Your task to perform on an android device: check the backup settings in the google photos Image 0: 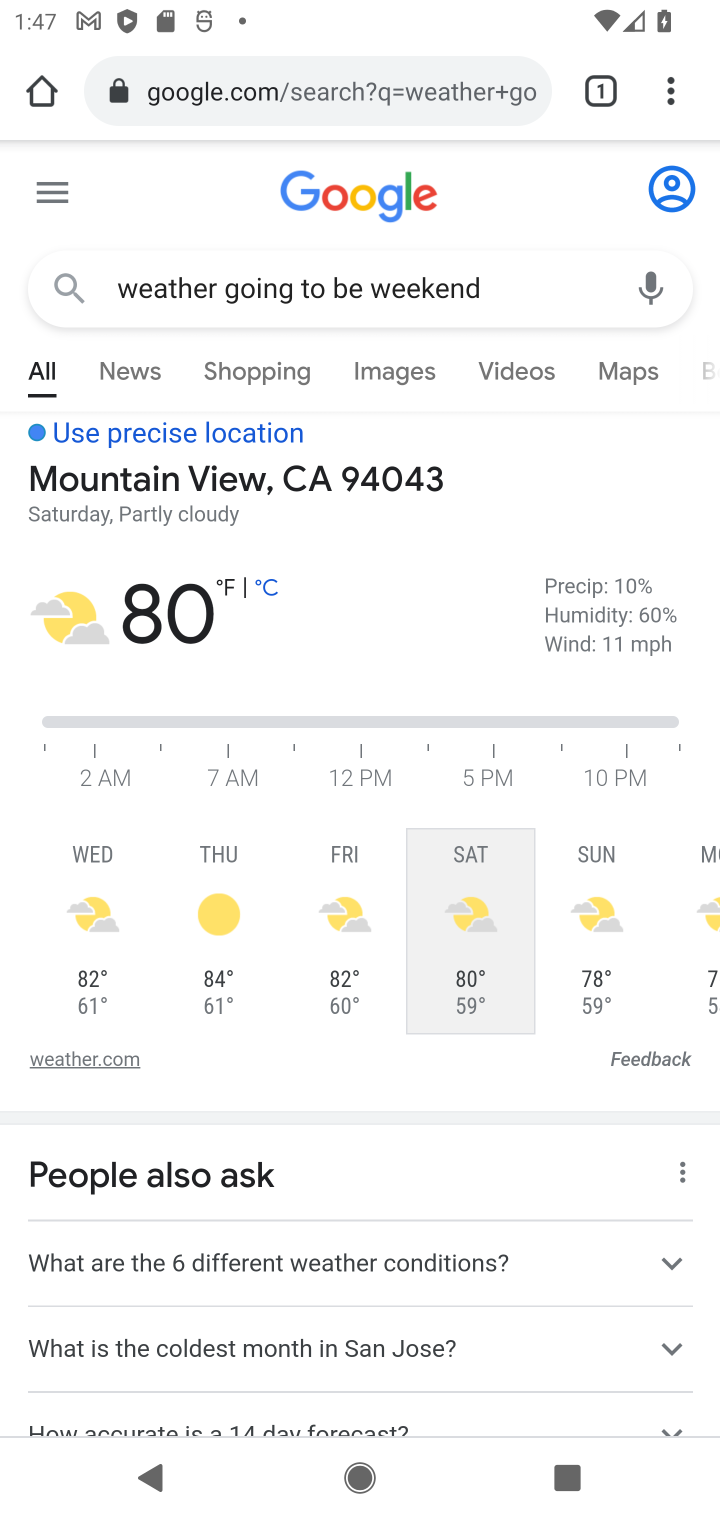
Step 0: press home button
Your task to perform on an android device: check the backup settings in the google photos Image 1: 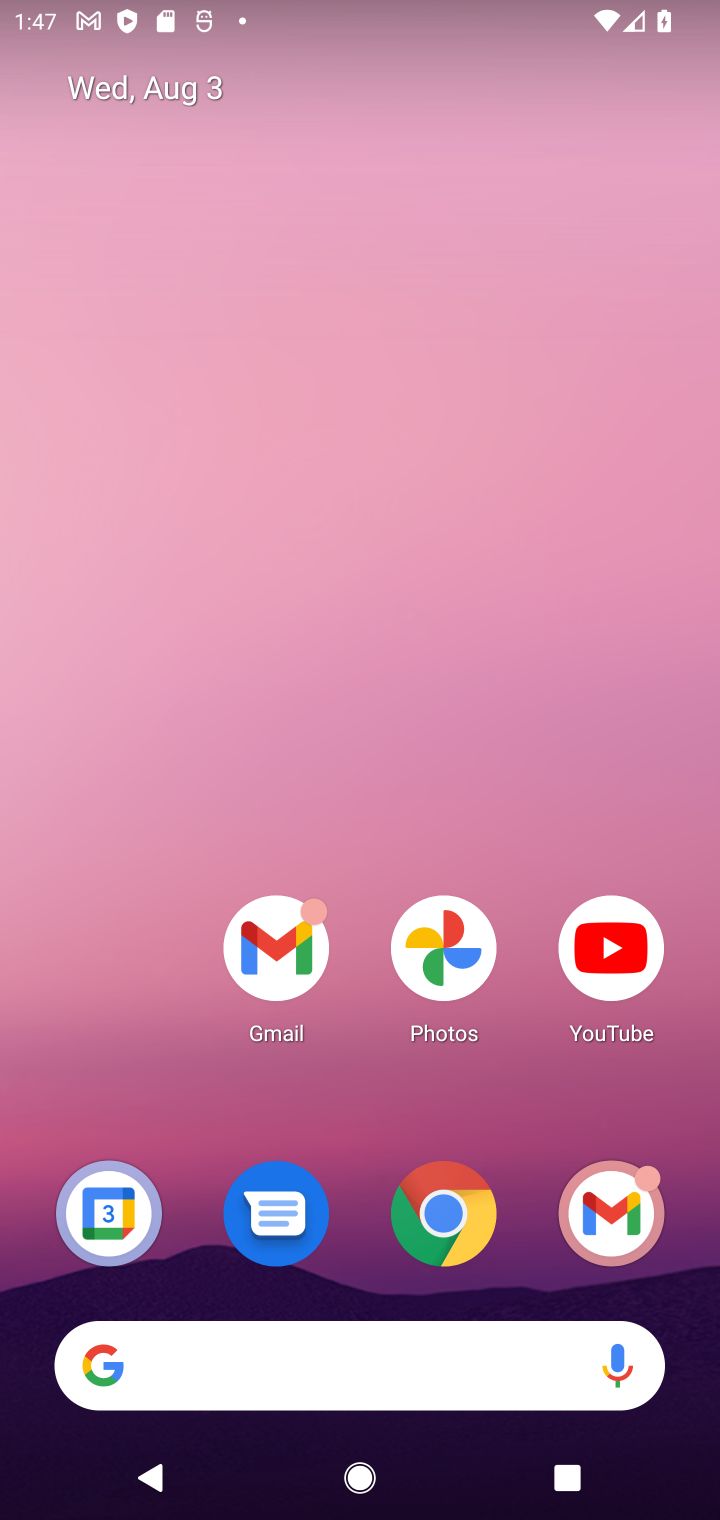
Step 1: drag from (458, 1026) to (534, 10)
Your task to perform on an android device: check the backup settings in the google photos Image 2: 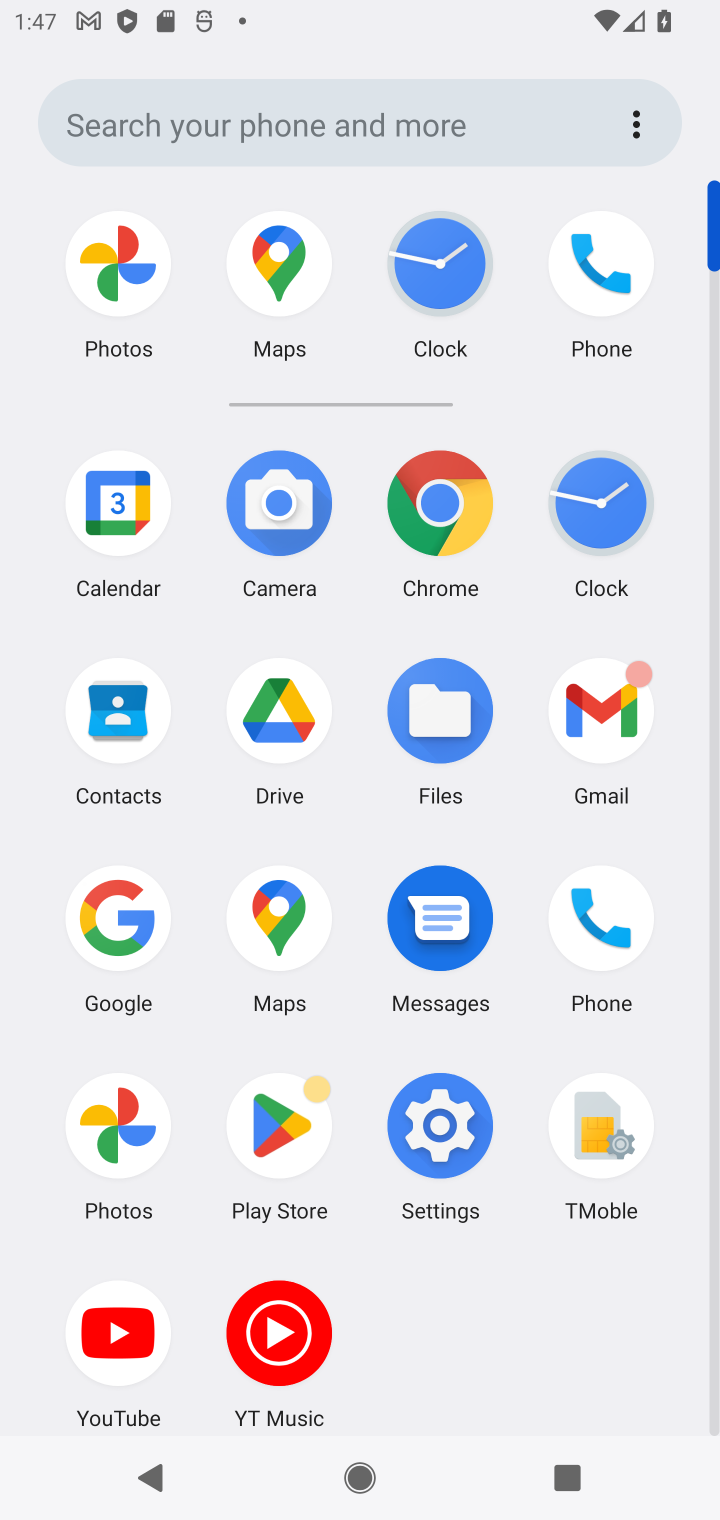
Step 2: click (117, 1132)
Your task to perform on an android device: check the backup settings in the google photos Image 3: 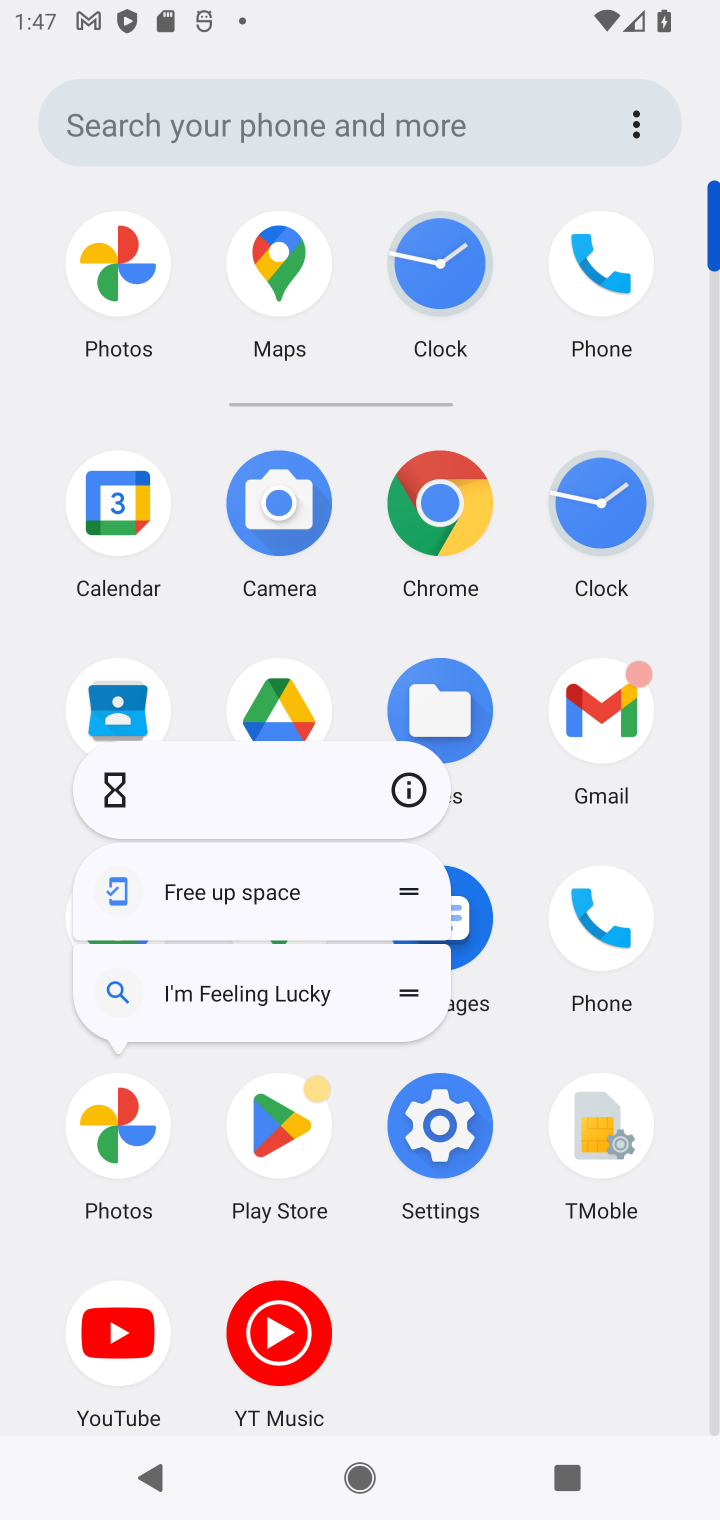
Step 3: click (117, 1132)
Your task to perform on an android device: check the backup settings in the google photos Image 4: 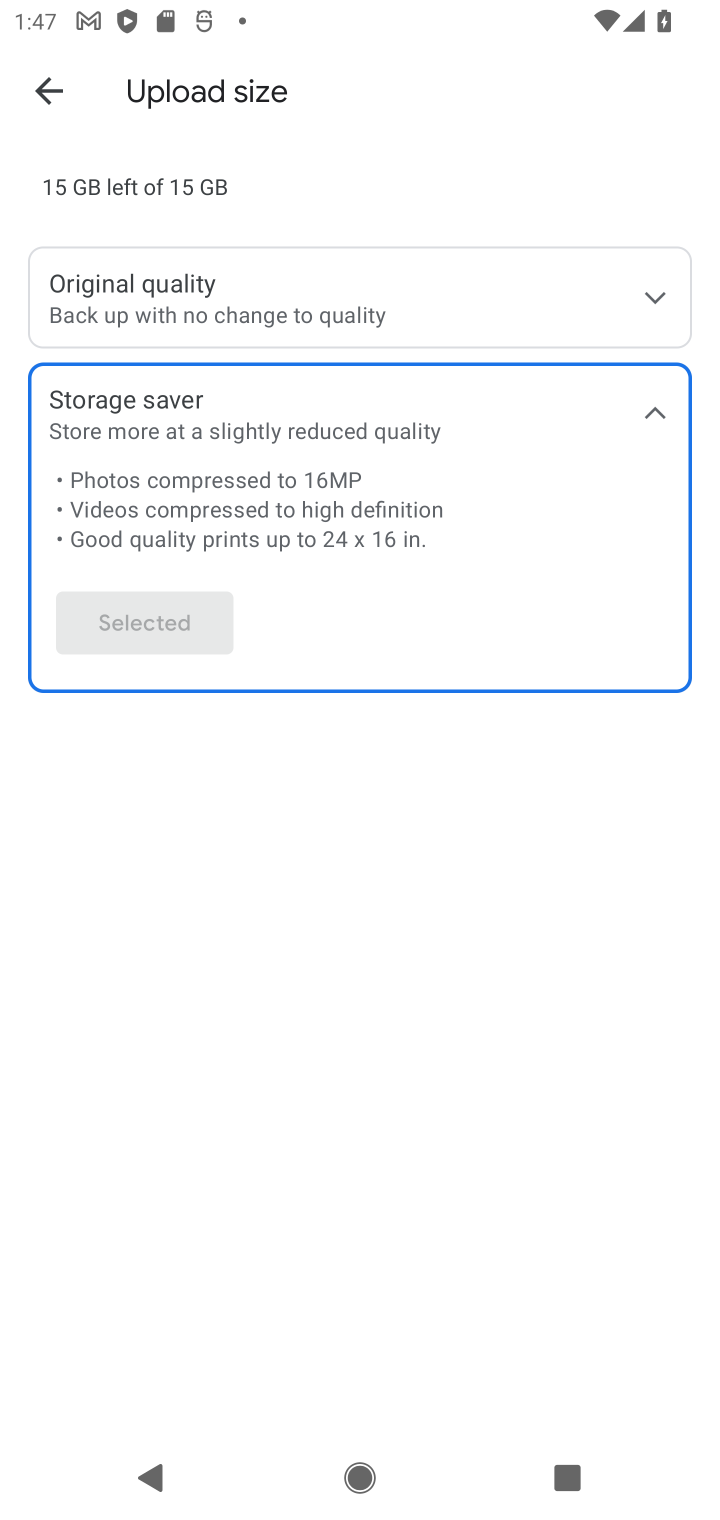
Step 4: task complete